Your task to perform on an android device: Go to Yahoo.com Image 0: 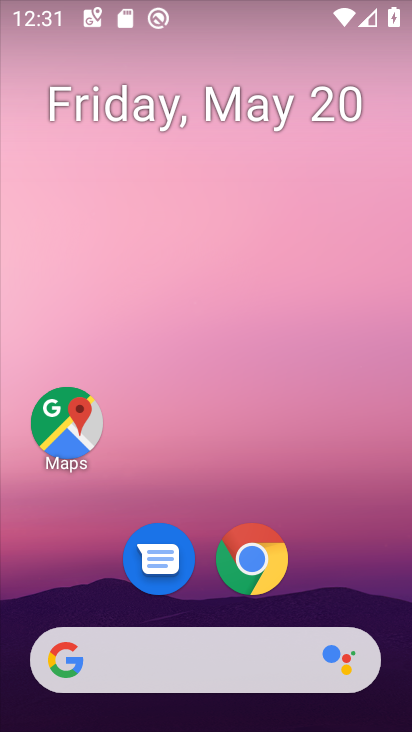
Step 0: click (258, 550)
Your task to perform on an android device: Go to Yahoo.com Image 1: 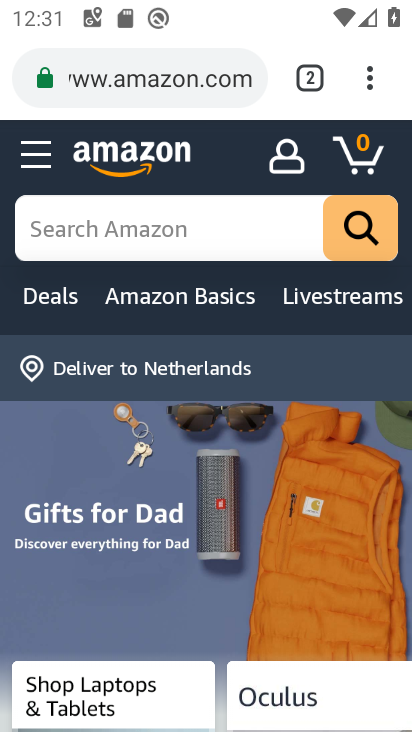
Step 1: click (168, 73)
Your task to perform on an android device: Go to Yahoo.com Image 2: 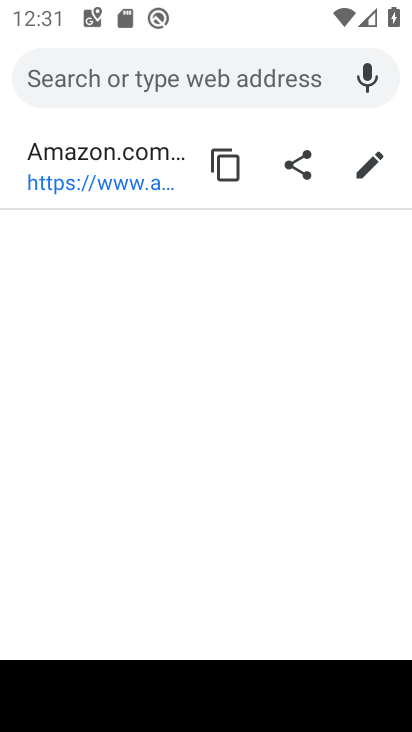
Step 2: type "yahoo.com"
Your task to perform on an android device: Go to Yahoo.com Image 3: 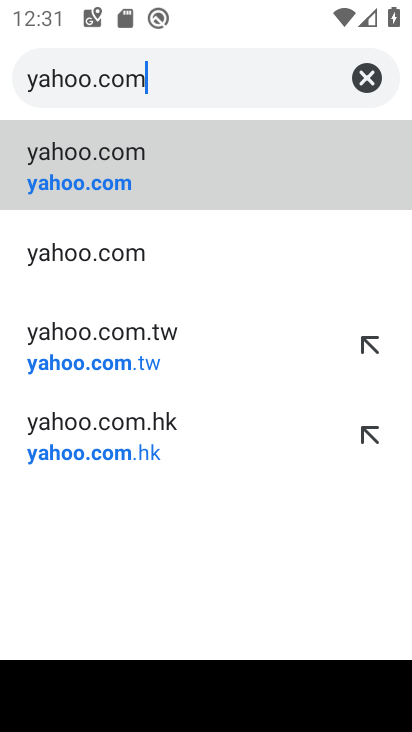
Step 3: click (119, 180)
Your task to perform on an android device: Go to Yahoo.com Image 4: 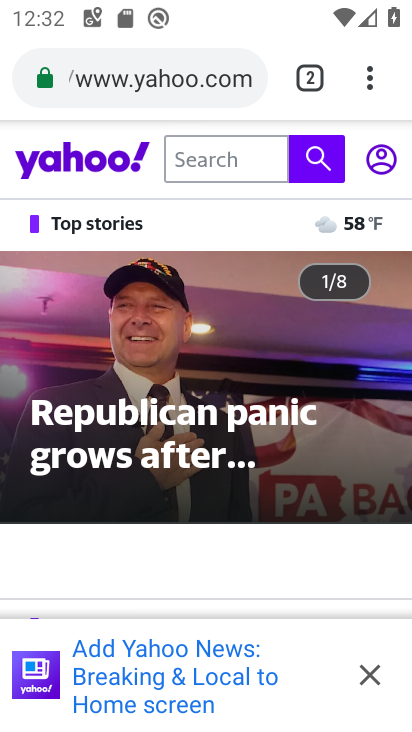
Step 4: task complete